Your task to perform on an android device: toggle priority inbox in the gmail app Image 0: 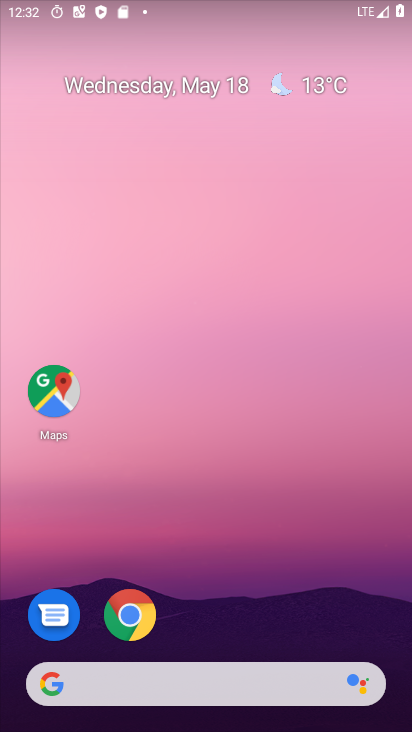
Step 0: press home button
Your task to perform on an android device: toggle priority inbox in the gmail app Image 1: 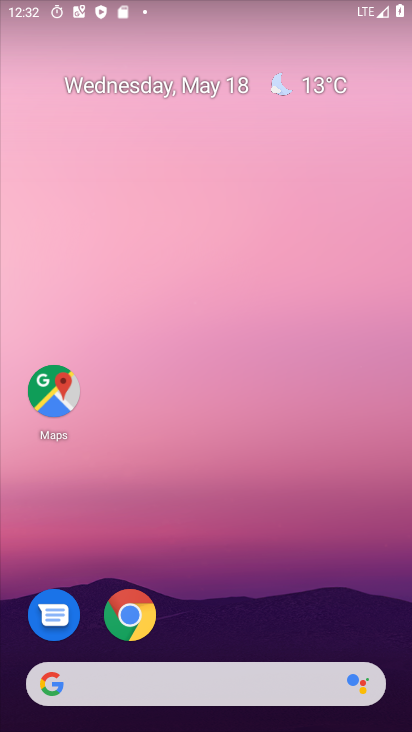
Step 1: drag from (160, 679) to (277, 64)
Your task to perform on an android device: toggle priority inbox in the gmail app Image 2: 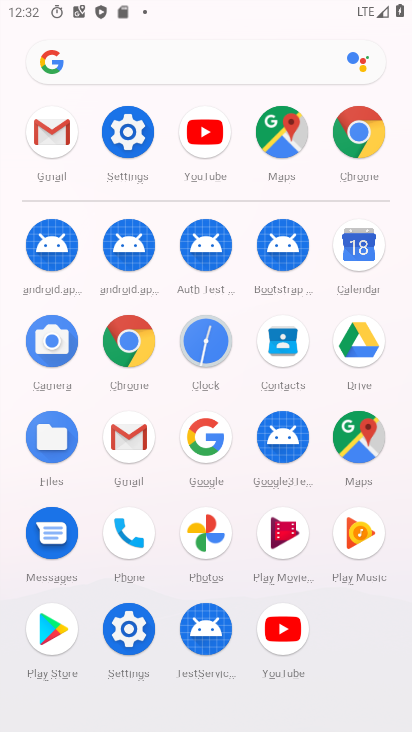
Step 2: click (54, 141)
Your task to perform on an android device: toggle priority inbox in the gmail app Image 3: 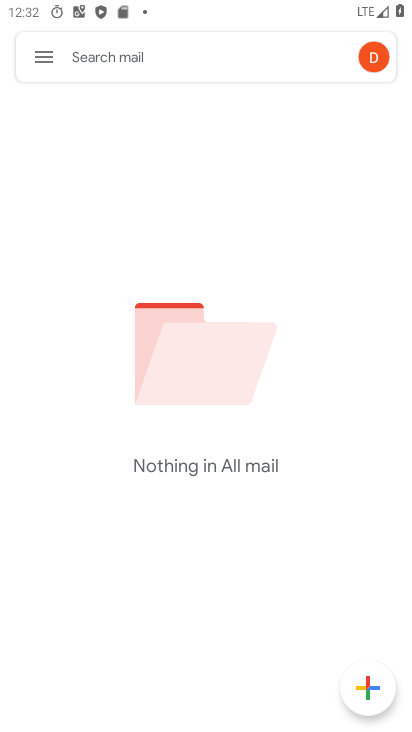
Step 3: click (33, 56)
Your task to perform on an android device: toggle priority inbox in the gmail app Image 4: 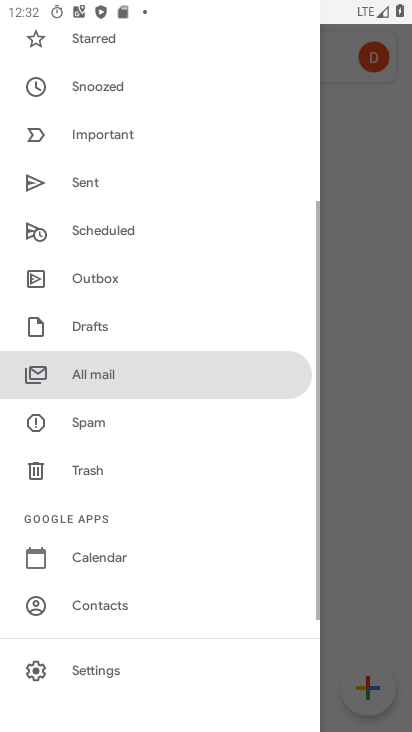
Step 4: click (122, 671)
Your task to perform on an android device: toggle priority inbox in the gmail app Image 5: 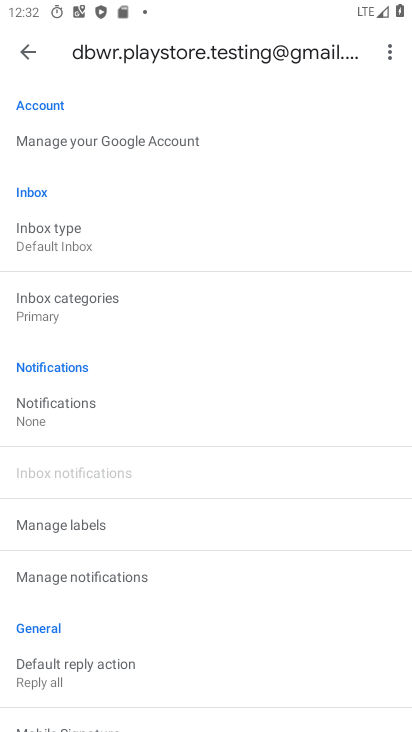
Step 5: click (74, 241)
Your task to perform on an android device: toggle priority inbox in the gmail app Image 6: 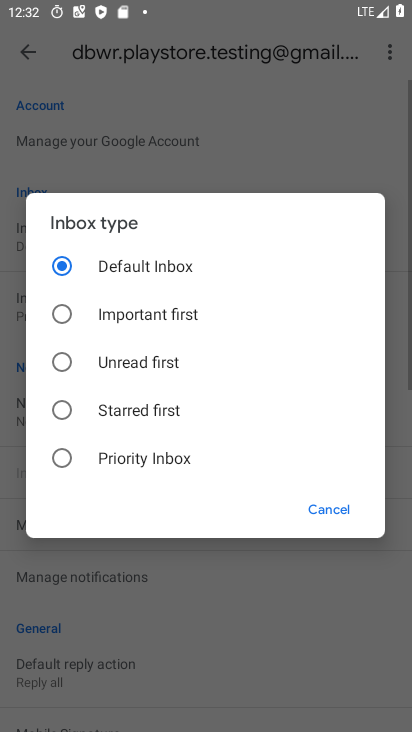
Step 6: click (63, 459)
Your task to perform on an android device: toggle priority inbox in the gmail app Image 7: 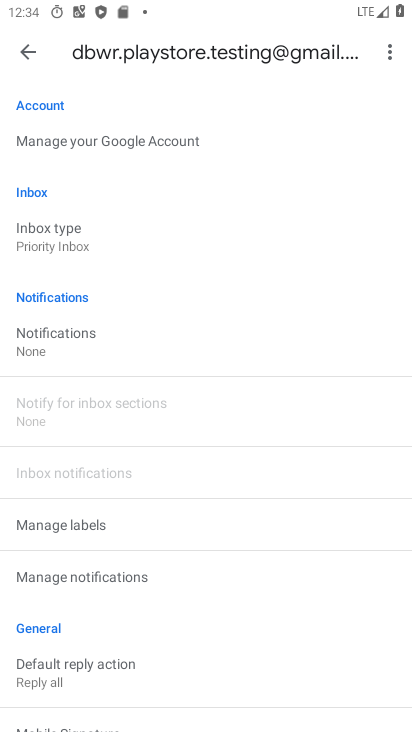
Step 7: task complete